Your task to perform on an android device: turn off translation in the chrome app Image 0: 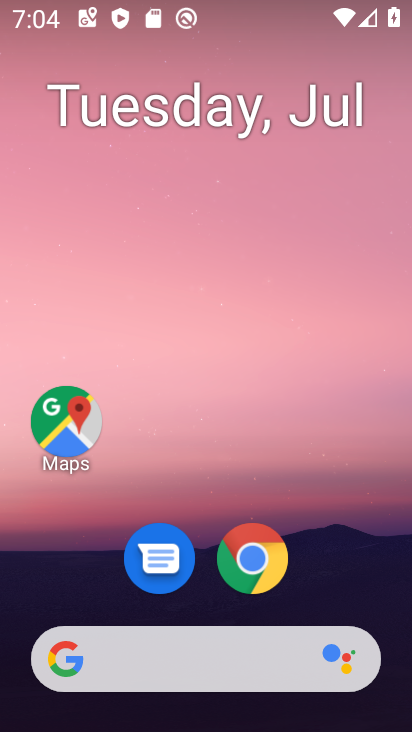
Step 0: click (254, 575)
Your task to perform on an android device: turn off translation in the chrome app Image 1: 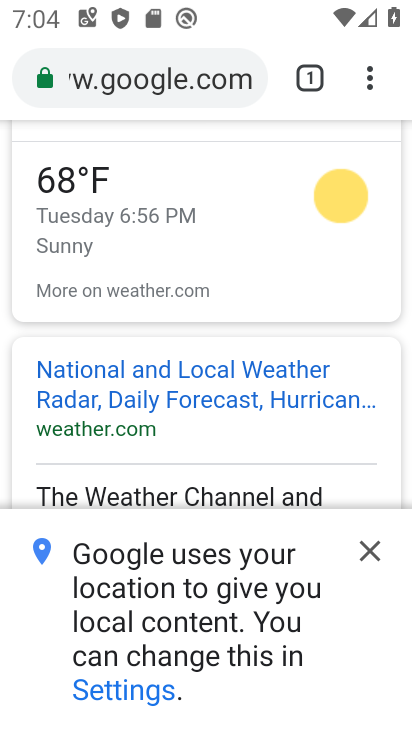
Step 1: drag from (372, 78) to (145, 607)
Your task to perform on an android device: turn off translation in the chrome app Image 2: 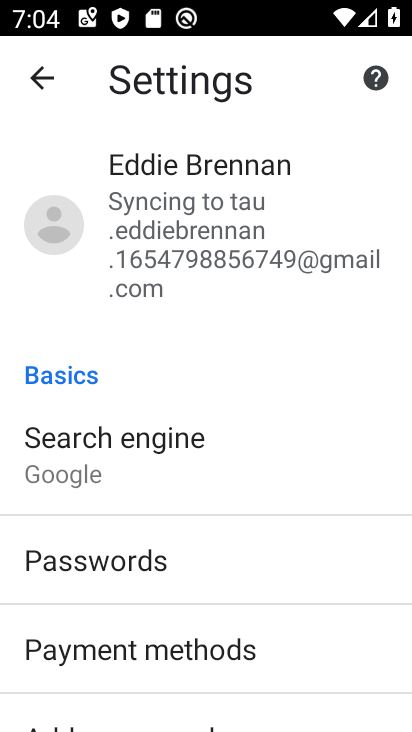
Step 2: drag from (150, 568) to (252, 134)
Your task to perform on an android device: turn off translation in the chrome app Image 3: 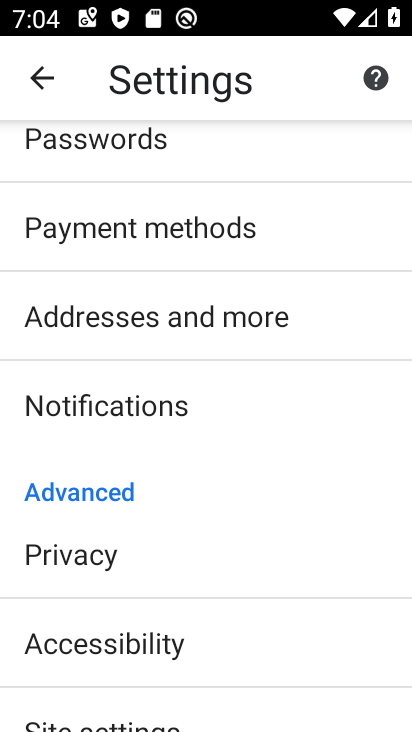
Step 3: drag from (162, 642) to (290, 197)
Your task to perform on an android device: turn off translation in the chrome app Image 4: 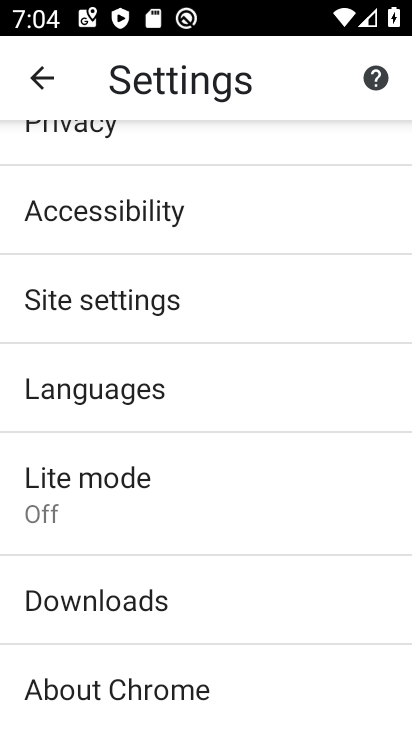
Step 4: click (108, 390)
Your task to perform on an android device: turn off translation in the chrome app Image 5: 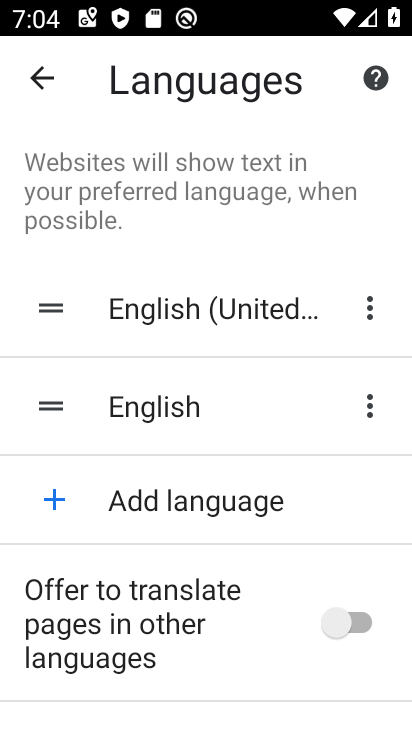
Step 5: task complete